Your task to perform on an android device: Go to location settings Image 0: 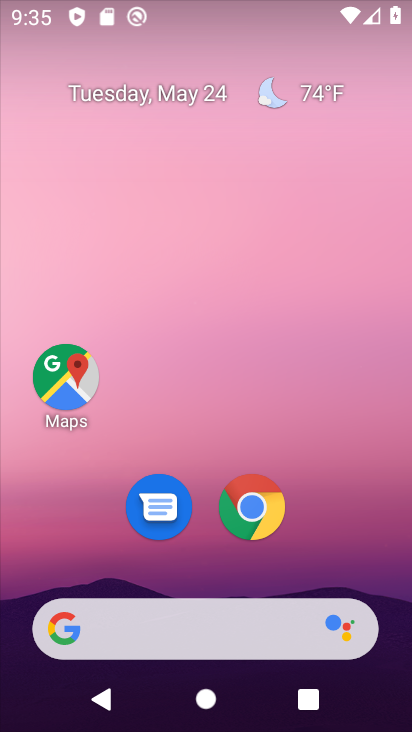
Step 0: drag from (228, 722) to (229, 141)
Your task to perform on an android device: Go to location settings Image 1: 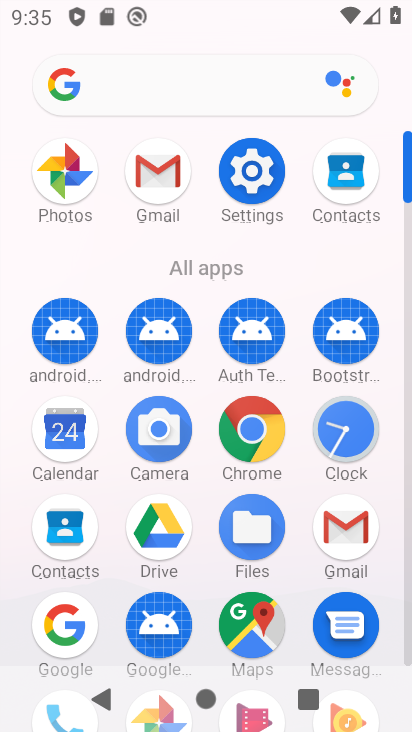
Step 1: click (259, 173)
Your task to perform on an android device: Go to location settings Image 2: 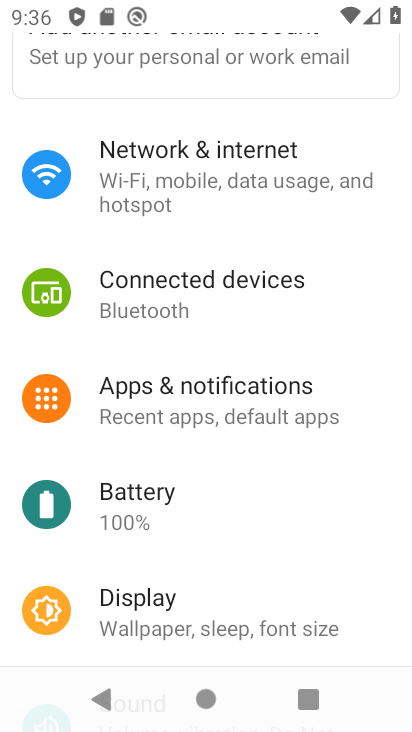
Step 2: drag from (183, 545) to (177, 267)
Your task to perform on an android device: Go to location settings Image 3: 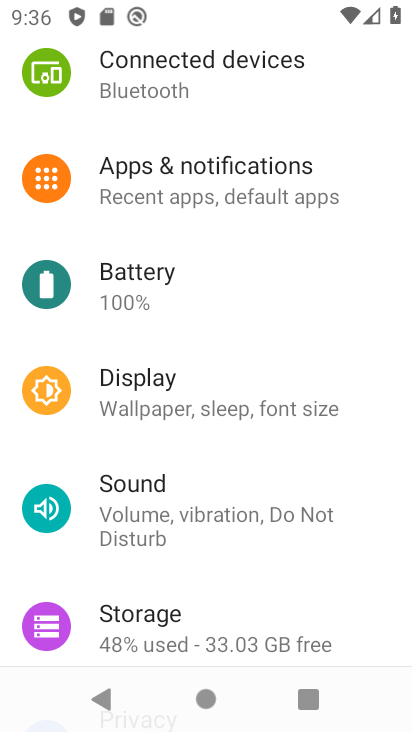
Step 3: drag from (178, 609) to (184, 277)
Your task to perform on an android device: Go to location settings Image 4: 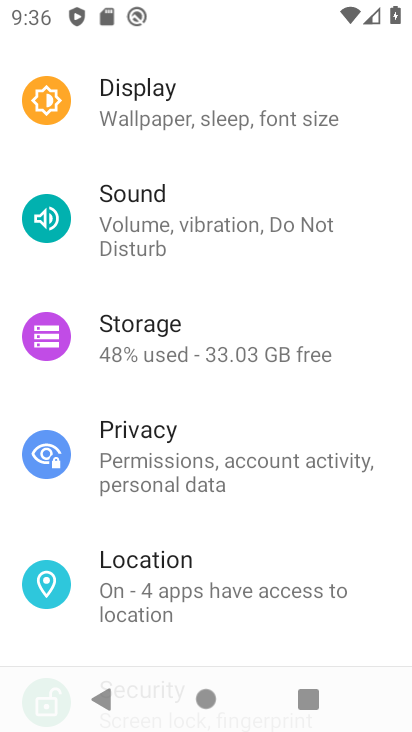
Step 4: click (137, 569)
Your task to perform on an android device: Go to location settings Image 5: 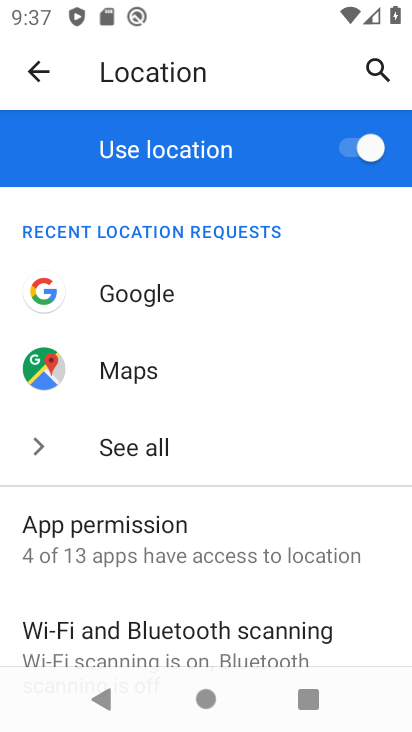
Step 5: task complete